Your task to perform on an android device: change text size in settings app Image 0: 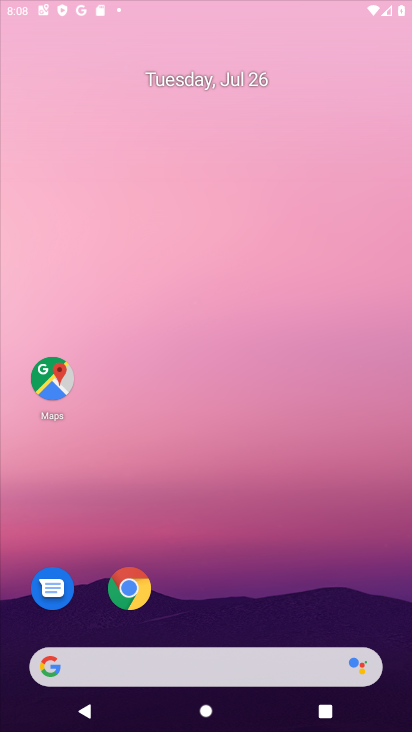
Step 0: press home button
Your task to perform on an android device: change text size in settings app Image 1: 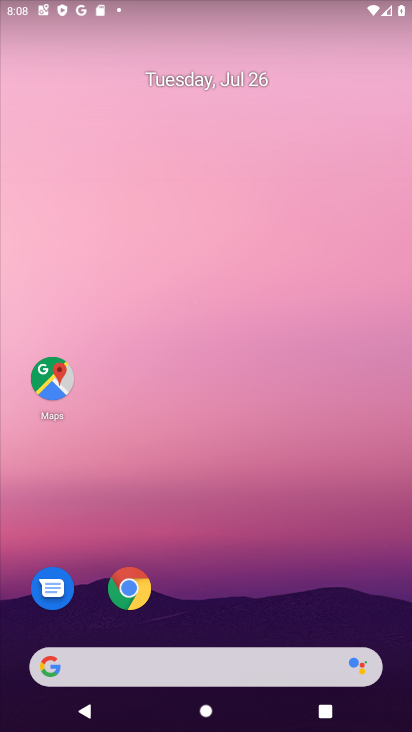
Step 1: drag from (268, 610) to (216, 161)
Your task to perform on an android device: change text size in settings app Image 2: 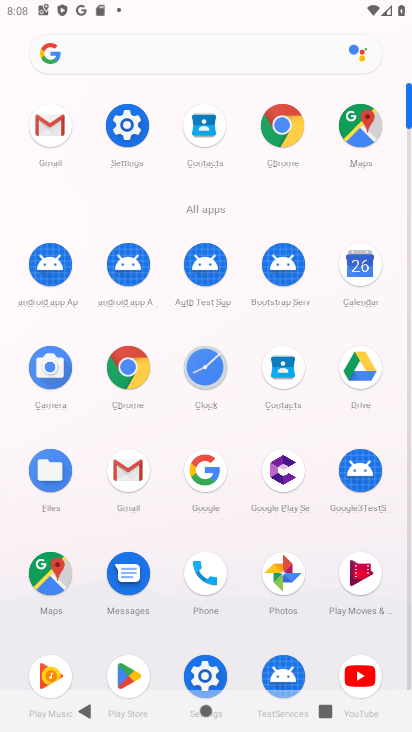
Step 2: click (120, 134)
Your task to perform on an android device: change text size in settings app Image 3: 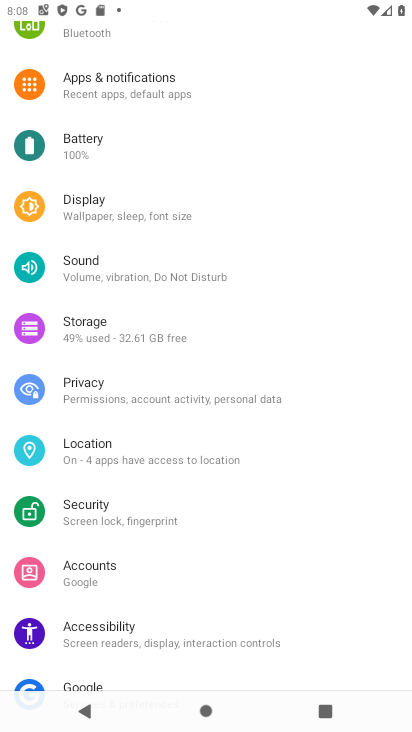
Step 3: click (135, 211)
Your task to perform on an android device: change text size in settings app Image 4: 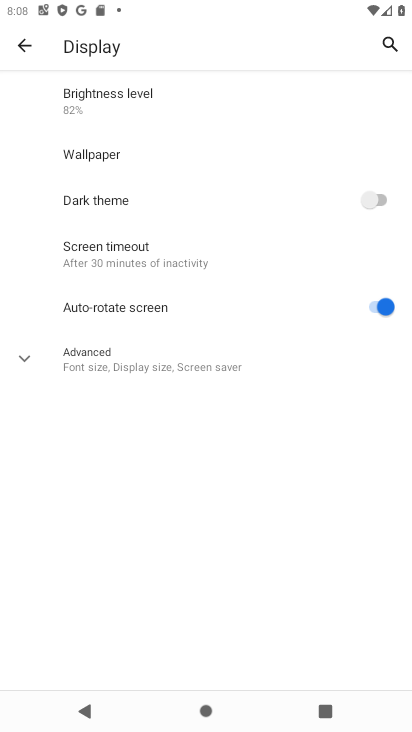
Step 4: click (72, 361)
Your task to perform on an android device: change text size in settings app Image 5: 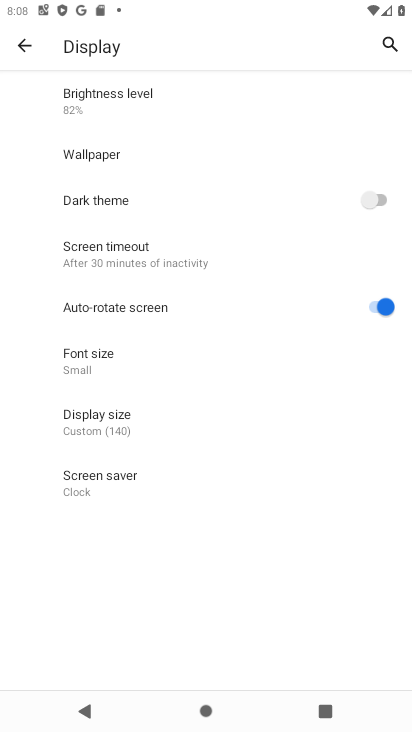
Step 5: click (87, 358)
Your task to perform on an android device: change text size in settings app Image 6: 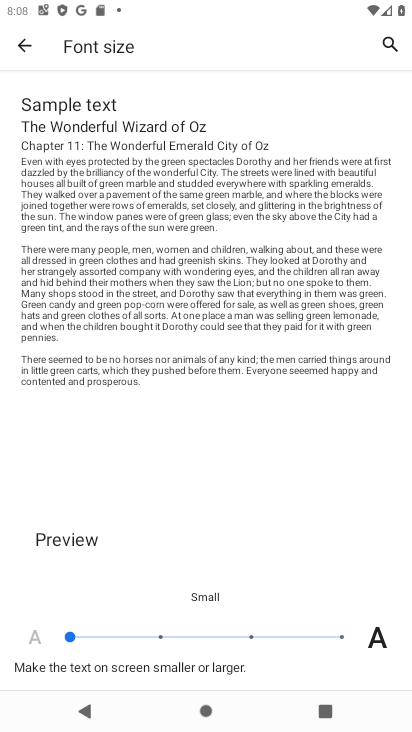
Step 6: click (250, 637)
Your task to perform on an android device: change text size in settings app Image 7: 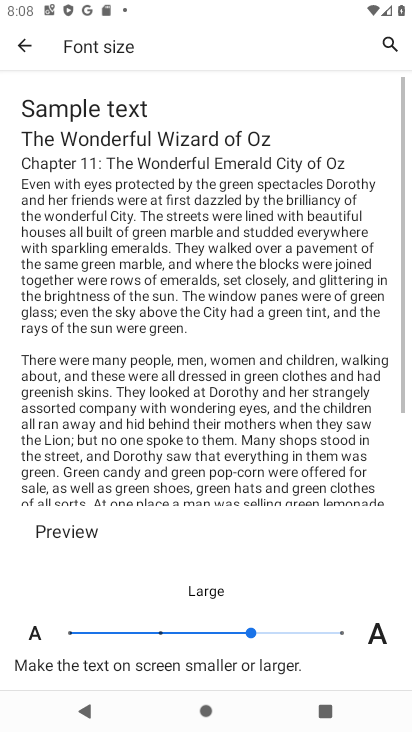
Step 7: click (339, 632)
Your task to perform on an android device: change text size in settings app Image 8: 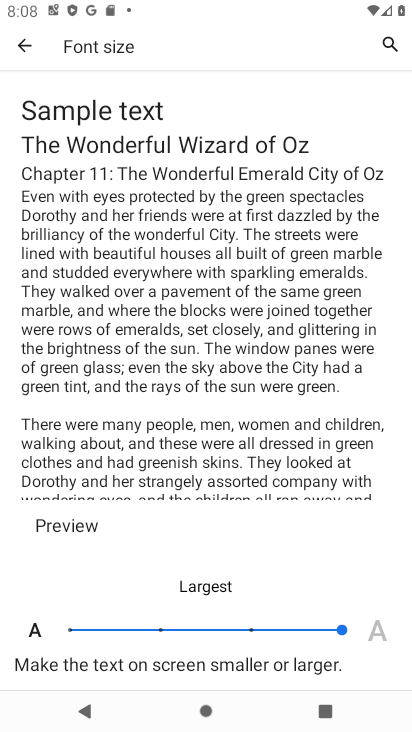
Step 8: task complete